Your task to perform on an android device: change alarm snooze length Image 0: 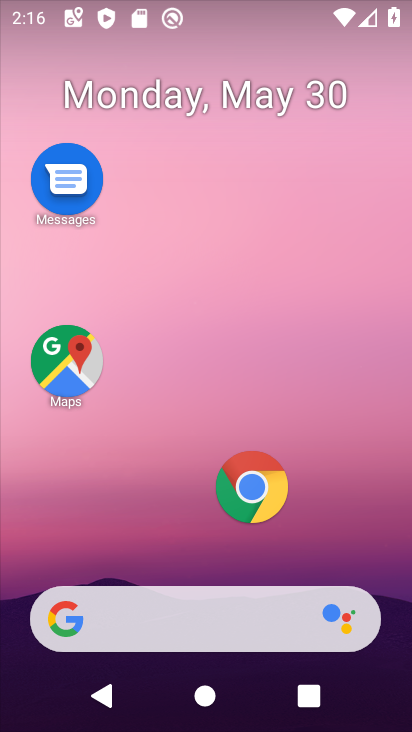
Step 0: drag from (270, 528) to (250, 114)
Your task to perform on an android device: change alarm snooze length Image 1: 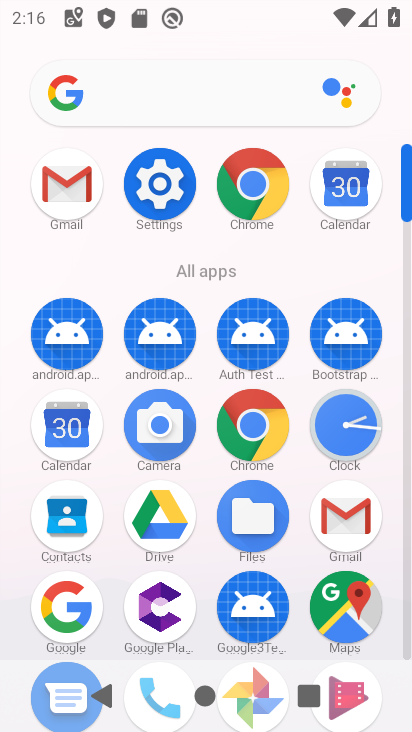
Step 1: click (353, 429)
Your task to perform on an android device: change alarm snooze length Image 2: 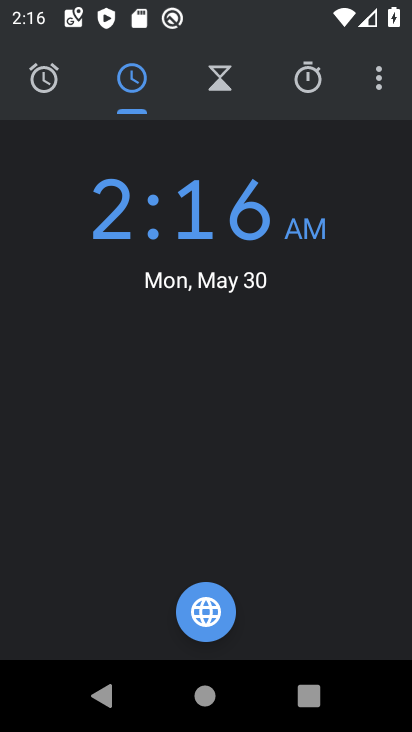
Step 2: click (46, 86)
Your task to perform on an android device: change alarm snooze length Image 3: 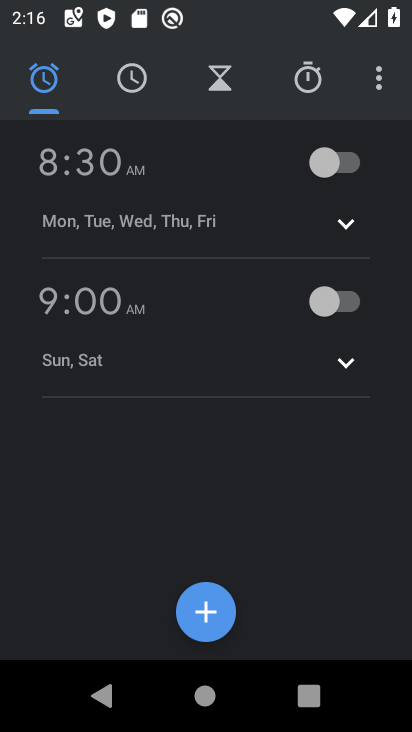
Step 3: click (390, 86)
Your task to perform on an android device: change alarm snooze length Image 4: 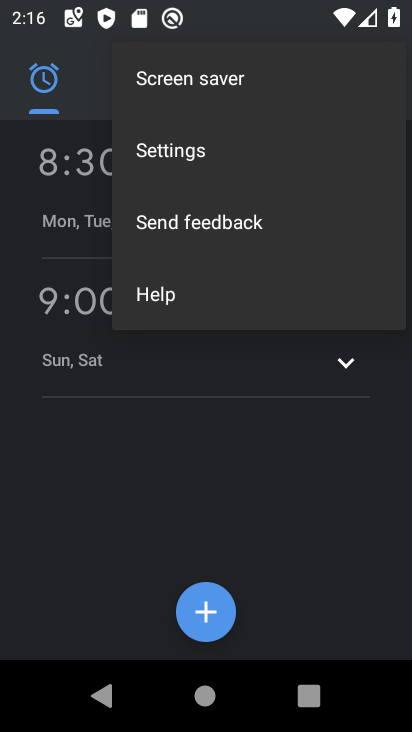
Step 4: click (299, 162)
Your task to perform on an android device: change alarm snooze length Image 5: 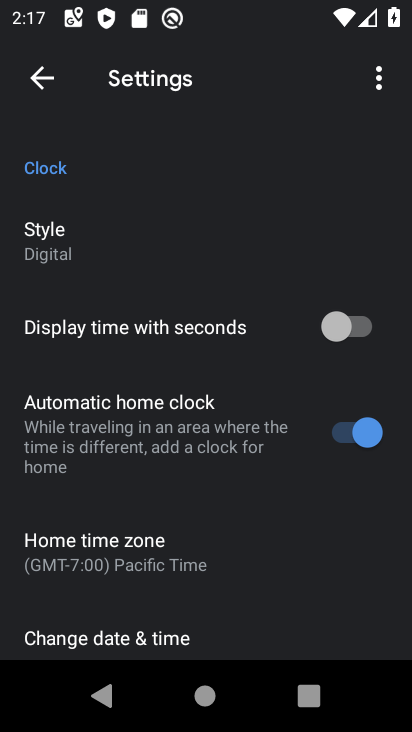
Step 5: drag from (184, 567) to (183, 313)
Your task to perform on an android device: change alarm snooze length Image 6: 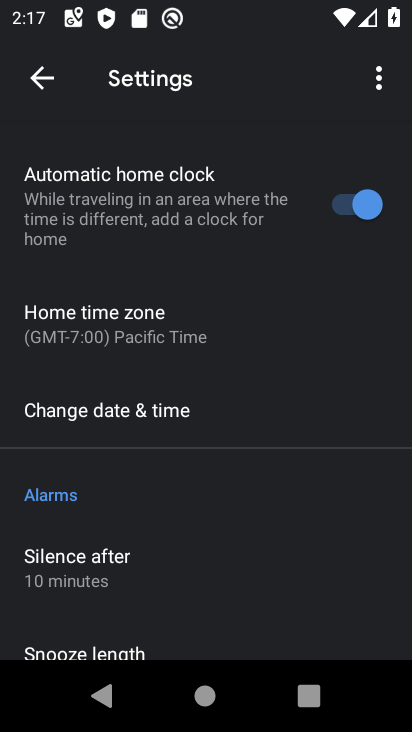
Step 6: click (106, 573)
Your task to perform on an android device: change alarm snooze length Image 7: 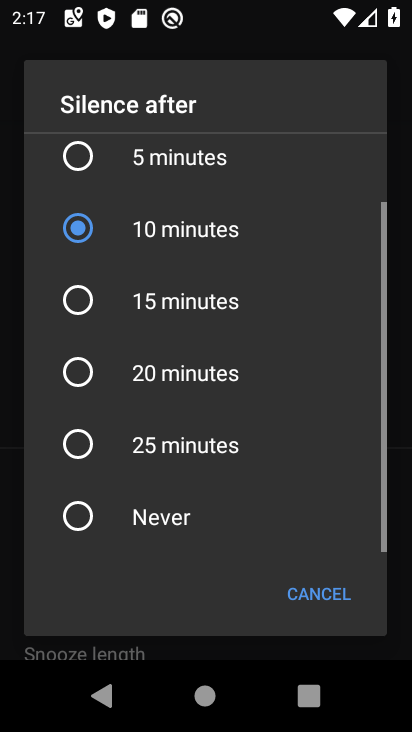
Step 7: click (314, 605)
Your task to perform on an android device: change alarm snooze length Image 8: 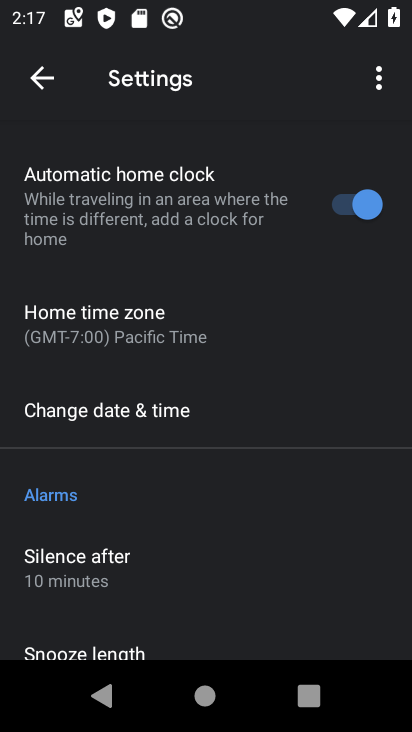
Step 8: drag from (285, 587) to (281, 466)
Your task to perform on an android device: change alarm snooze length Image 9: 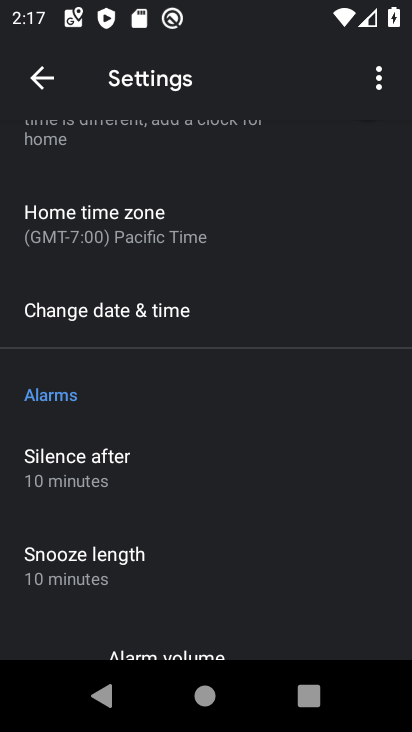
Step 9: click (174, 566)
Your task to perform on an android device: change alarm snooze length Image 10: 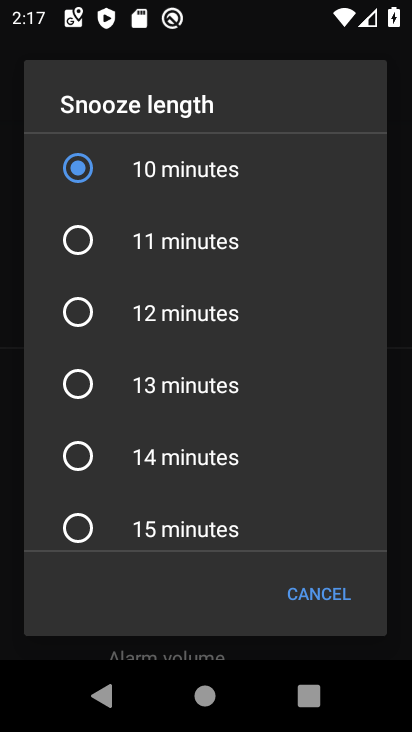
Step 10: click (74, 387)
Your task to perform on an android device: change alarm snooze length Image 11: 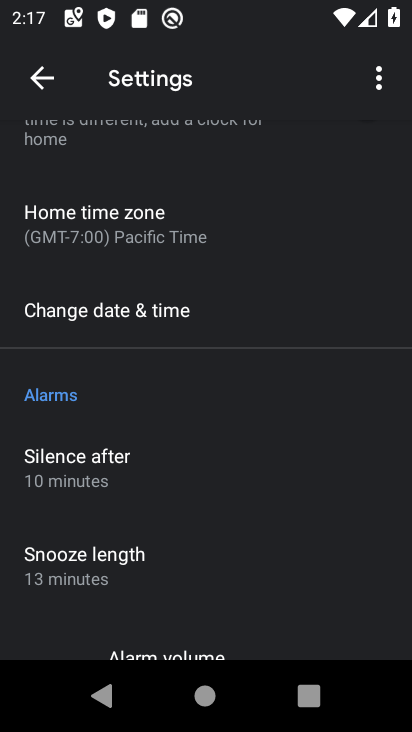
Step 11: task complete